Your task to perform on an android device: Open ESPN.com Image 0: 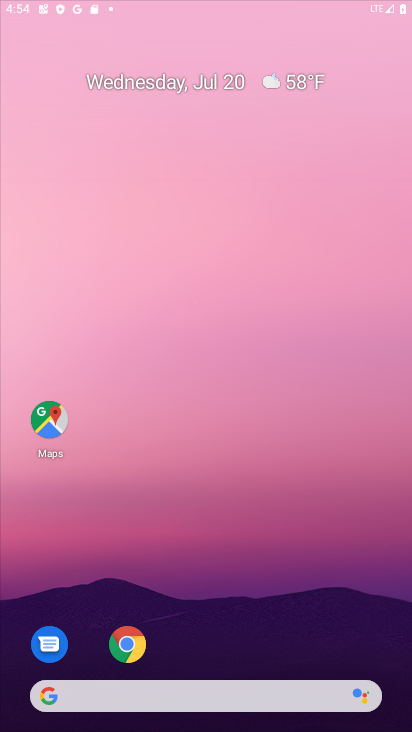
Step 0: press home button
Your task to perform on an android device: Open ESPN.com Image 1: 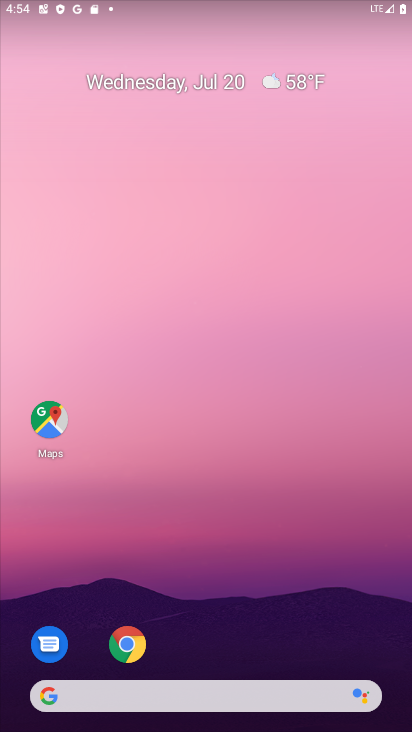
Step 1: click (46, 701)
Your task to perform on an android device: Open ESPN.com Image 2: 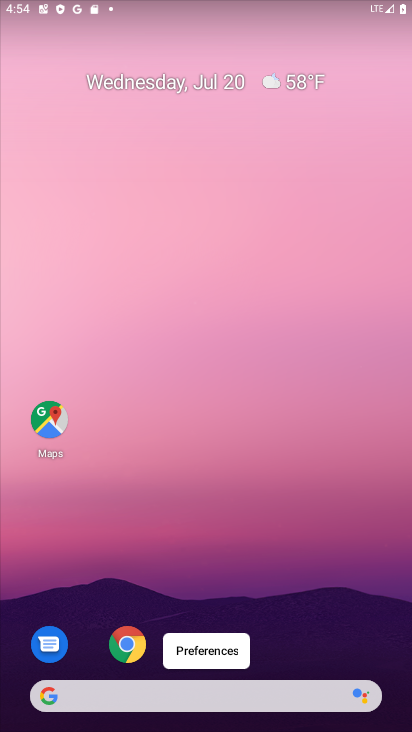
Step 2: click (46, 701)
Your task to perform on an android device: Open ESPN.com Image 3: 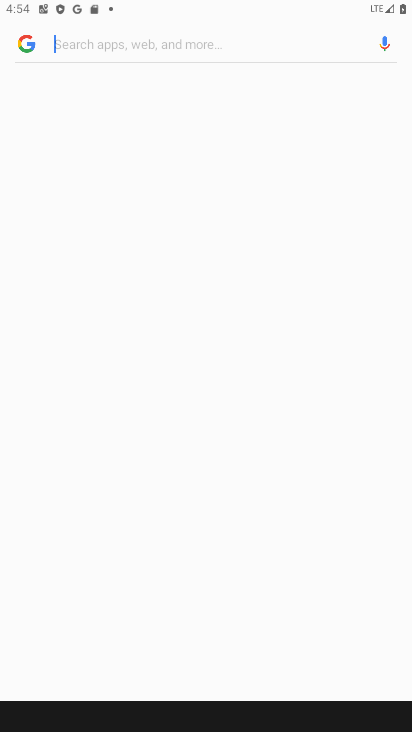
Step 3: click (46, 701)
Your task to perform on an android device: Open ESPN.com Image 4: 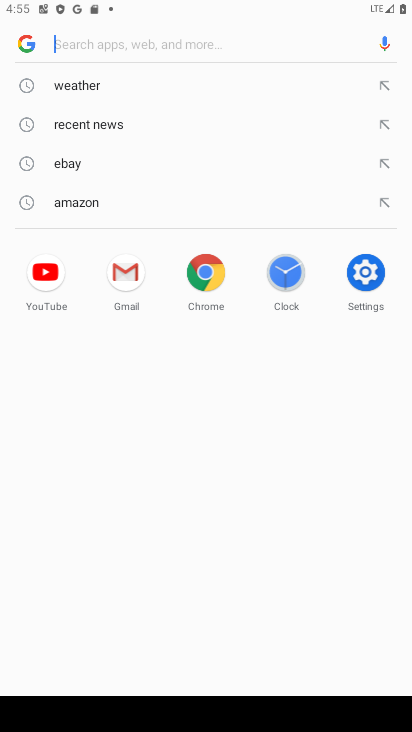
Step 4: type "ESPN.com"
Your task to perform on an android device: Open ESPN.com Image 5: 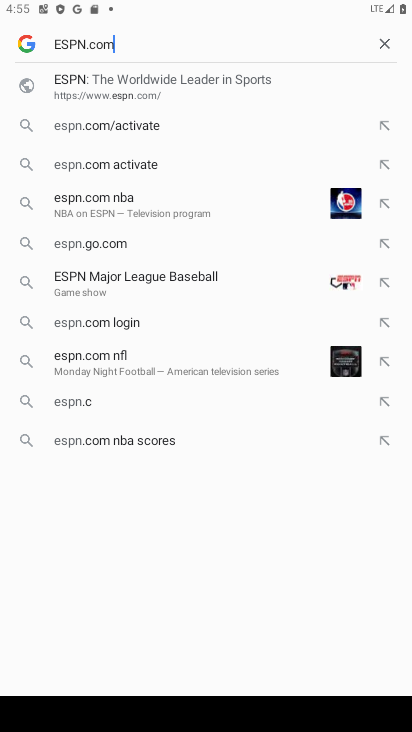
Step 5: press enter
Your task to perform on an android device: Open ESPN.com Image 6: 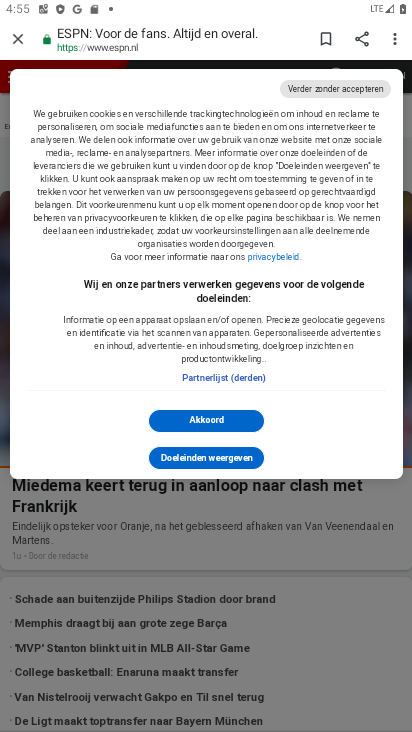
Step 6: click (194, 437)
Your task to perform on an android device: Open ESPN.com Image 7: 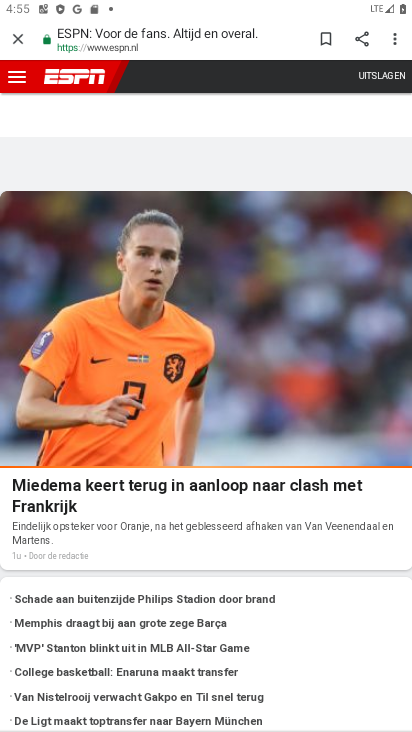
Step 7: task complete